Your task to perform on an android device: What's the weather? Image 0: 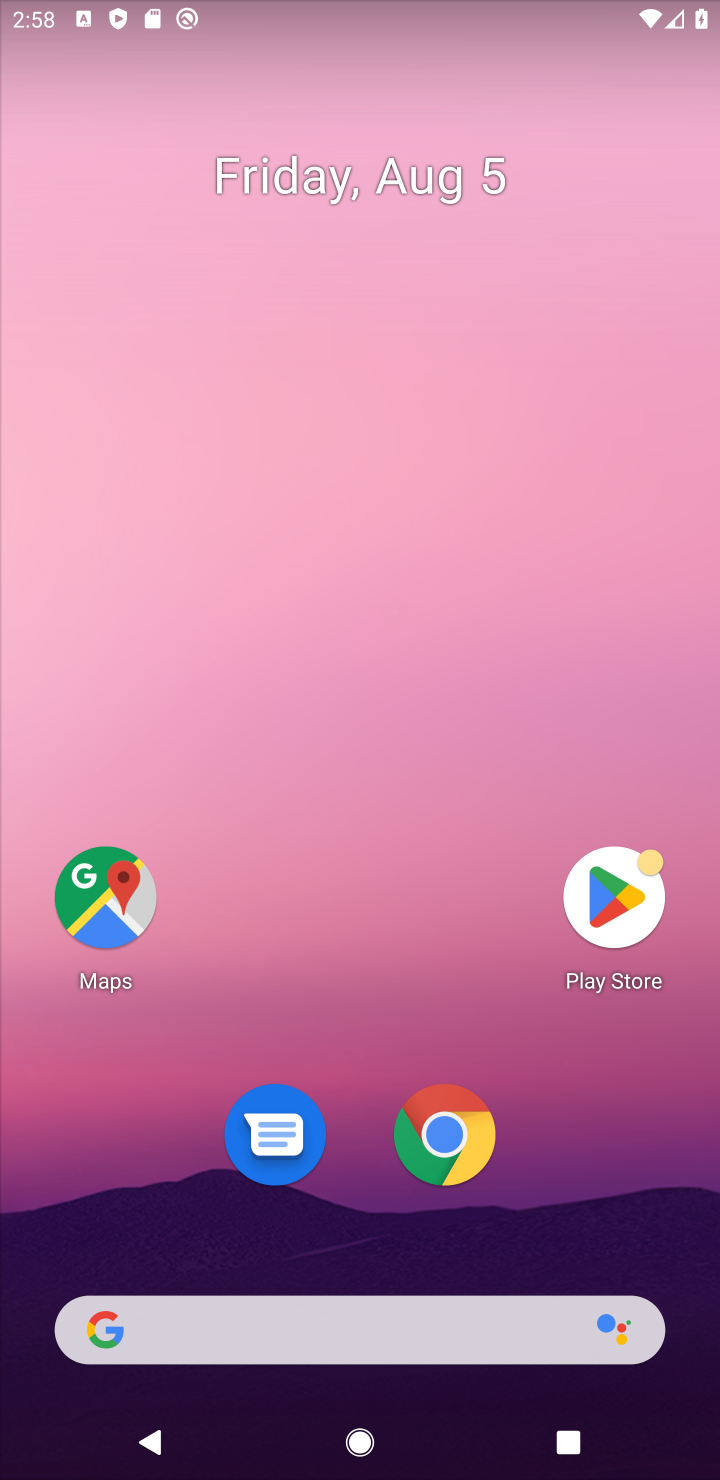
Step 0: click (332, 1340)
Your task to perform on an android device: What's the weather? Image 1: 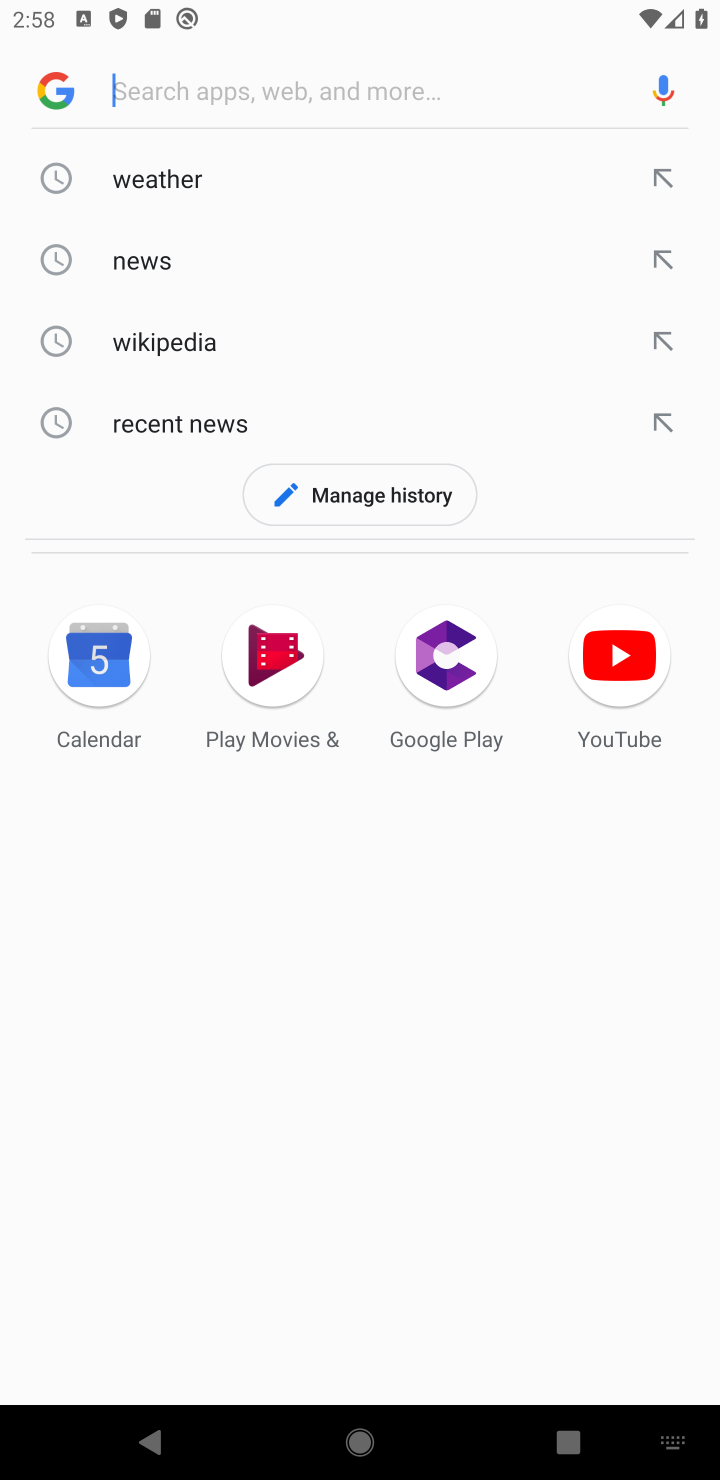
Step 1: type "What's the weather?"
Your task to perform on an android device: What's the weather? Image 2: 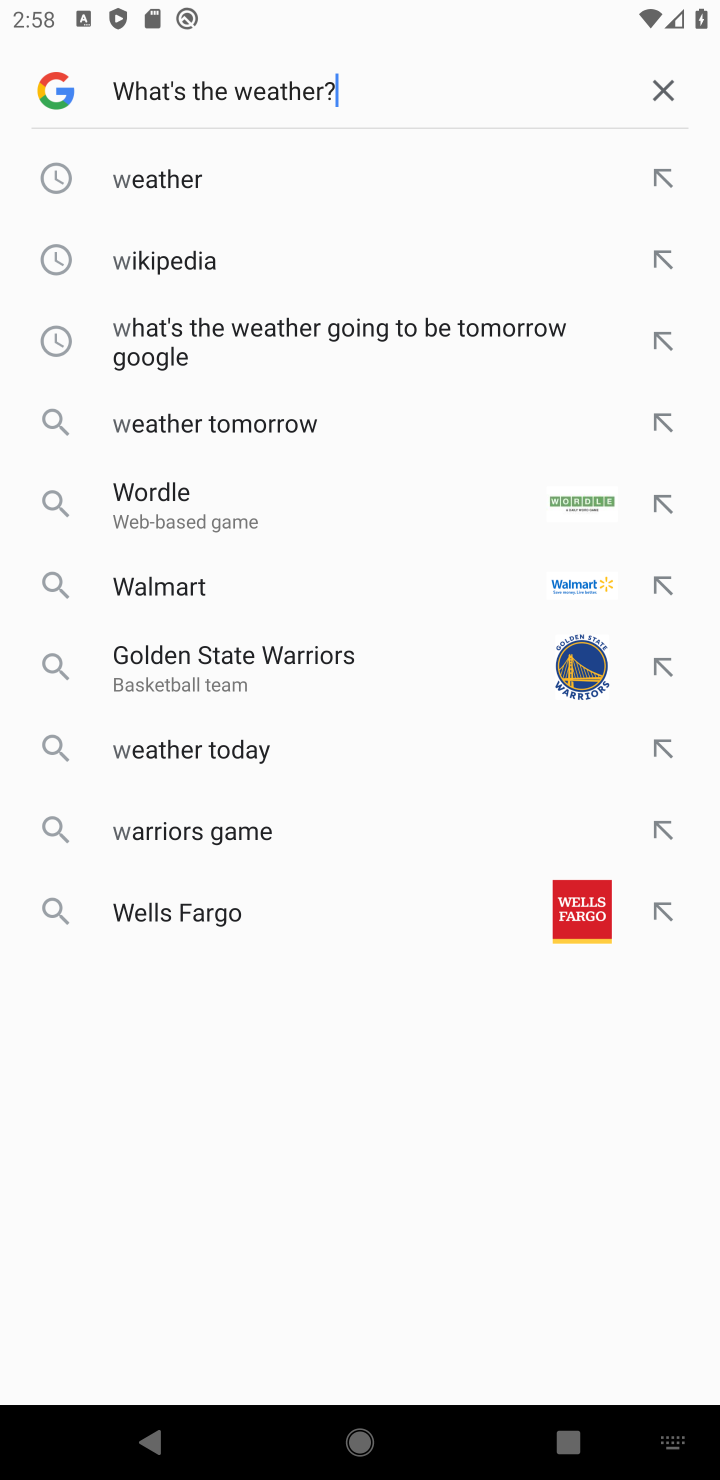
Step 2: press enter
Your task to perform on an android device: What's the weather? Image 3: 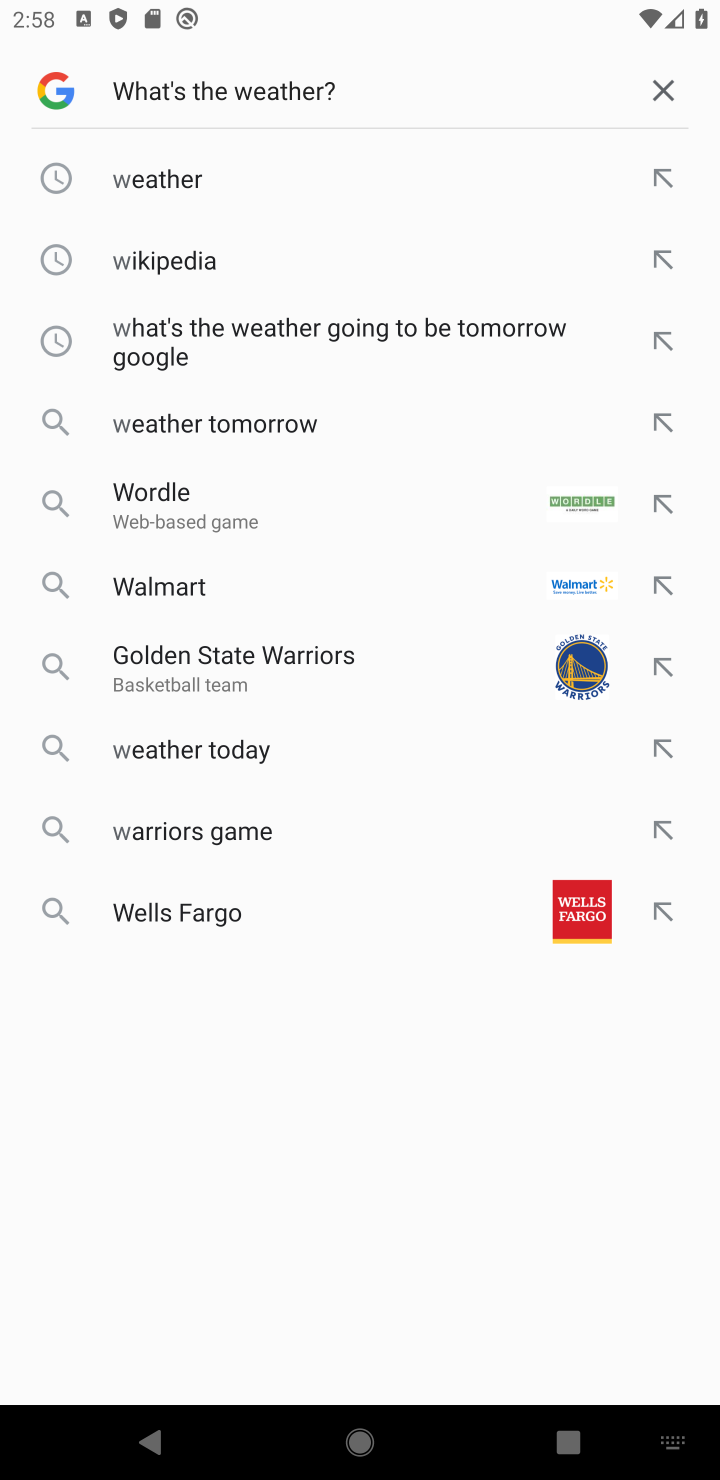
Step 3: type ""
Your task to perform on an android device: What's the weather? Image 4: 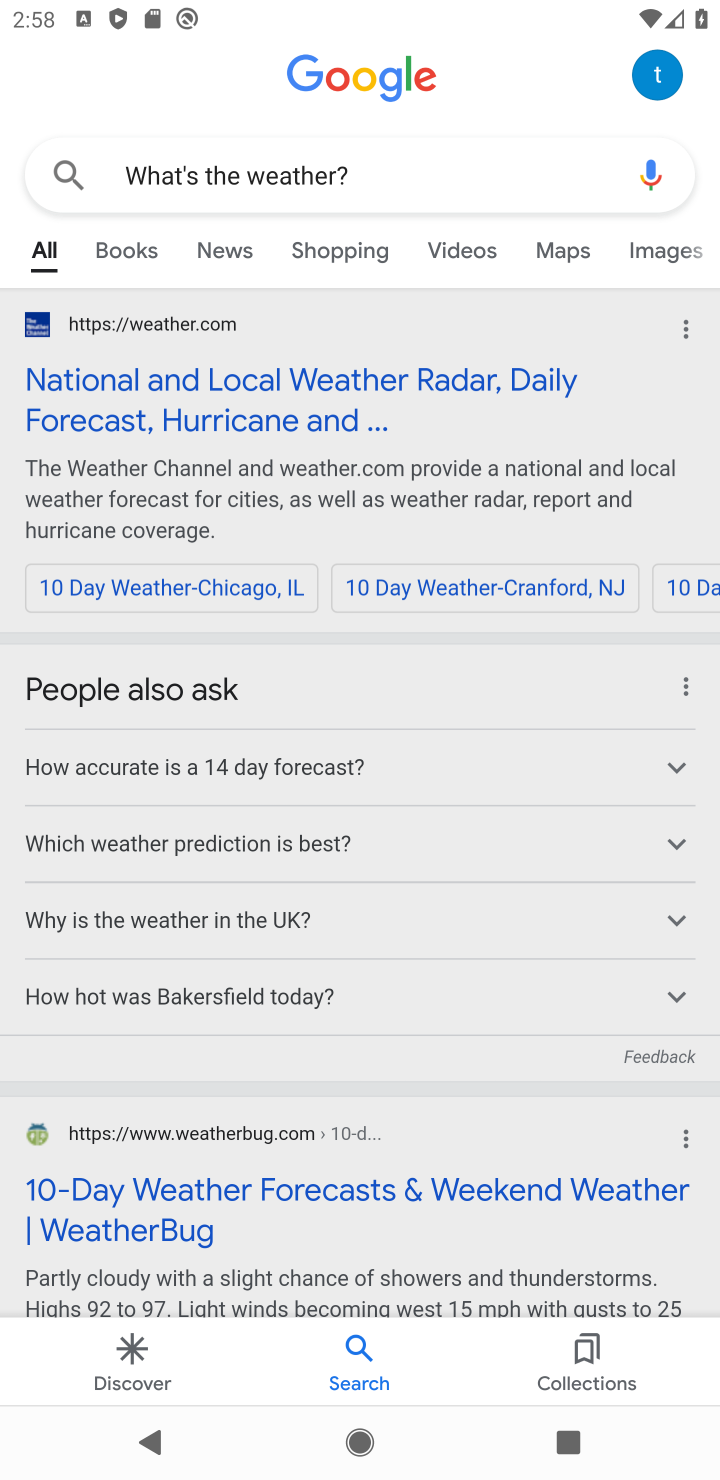
Step 4: task complete